Your task to perform on an android device: Show the shopping cart on amazon.com. Add dell xps to the cart on amazon.com Image 0: 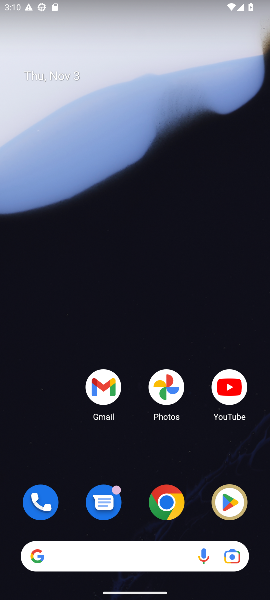
Step 0: drag from (129, 519) to (137, 304)
Your task to perform on an android device: Show the shopping cart on amazon.com. Add dell xps to the cart on amazon.com Image 1: 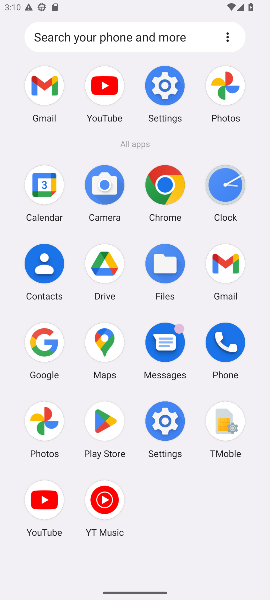
Step 1: click (43, 349)
Your task to perform on an android device: Show the shopping cart on amazon.com. Add dell xps to the cart on amazon.com Image 2: 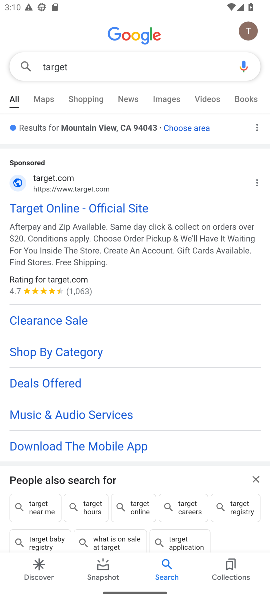
Step 2: click (105, 68)
Your task to perform on an android device: Show the shopping cart on amazon.com. Add dell xps to the cart on amazon.com Image 3: 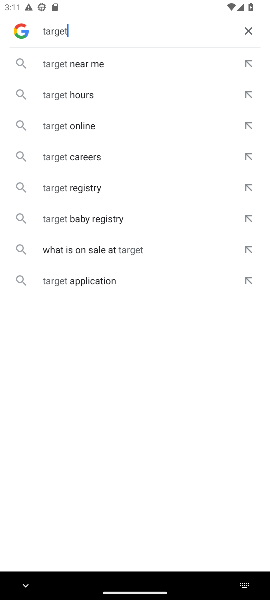
Step 3: click (250, 33)
Your task to perform on an android device: Show the shopping cart on amazon.com. Add dell xps to the cart on amazon.com Image 4: 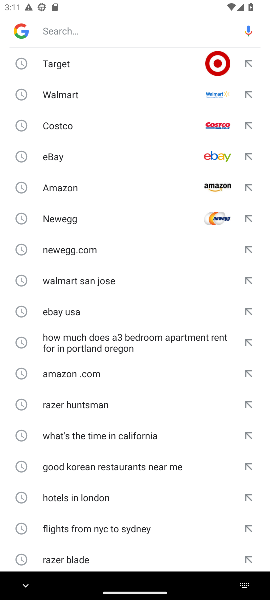
Step 4: type "amazon.com"
Your task to perform on an android device: Show the shopping cart on amazon.com. Add dell xps to the cart on amazon.com Image 5: 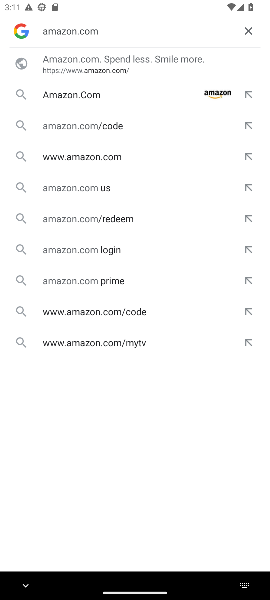
Step 5: click (108, 72)
Your task to perform on an android device: Show the shopping cart on amazon.com. Add dell xps to the cart on amazon.com Image 6: 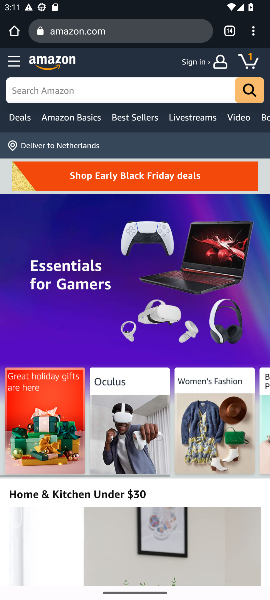
Step 6: click (146, 92)
Your task to perform on an android device: Show the shopping cart on amazon.com. Add dell xps to the cart on amazon.com Image 7: 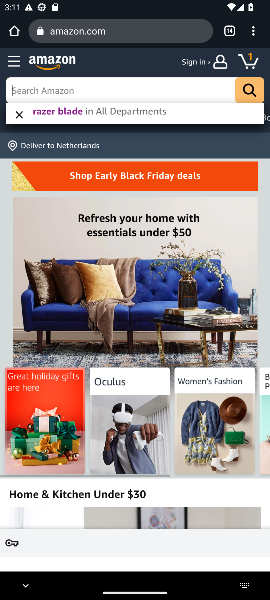
Step 7: type "dell xps"
Your task to perform on an android device: Show the shopping cart on amazon.com. Add dell xps to the cart on amazon.com Image 8: 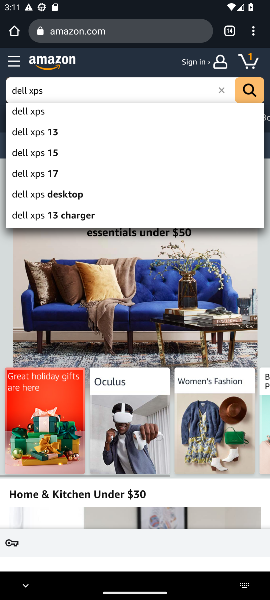
Step 8: click (61, 113)
Your task to perform on an android device: Show the shopping cart on amazon.com. Add dell xps to the cart on amazon.com Image 9: 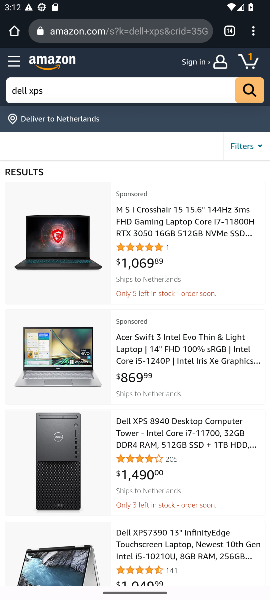
Step 9: click (120, 231)
Your task to perform on an android device: Show the shopping cart on amazon.com. Add dell xps to the cart on amazon.com Image 10: 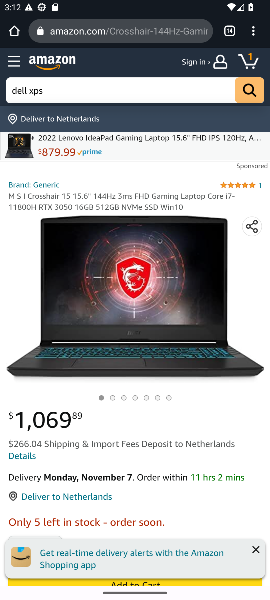
Step 10: drag from (241, 454) to (249, 267)
Your task to perform on an android device: Show the shopping cart on amazon.com. Add dell xps to the cart on amazon.com Image 11: 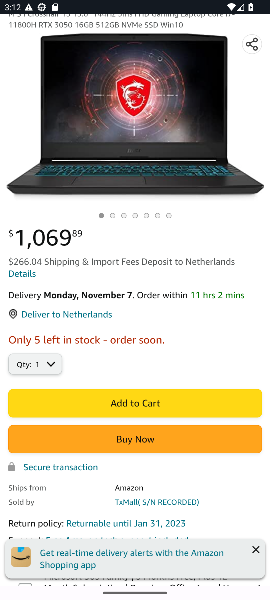
Step 11: click (206, 405)
Your task to perform on an android device: Show the shopping cart on amazon.com. Add dell xps to the cart on amazon.com Image 12: 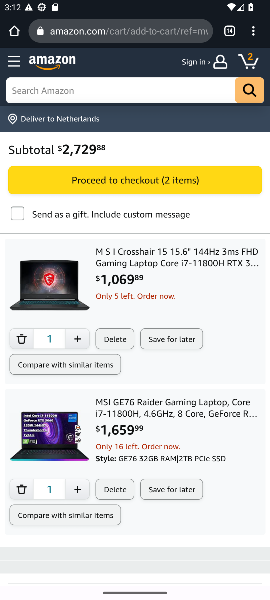
Step 12: task complete